Your task to perform on an android device: What is the recent news? Image 0: 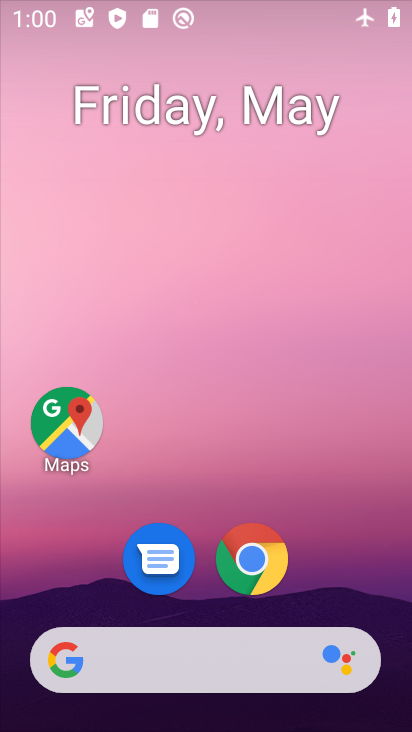
Step 0: press home button
Your task to perform on an android device: What is the recent news? Image 1: 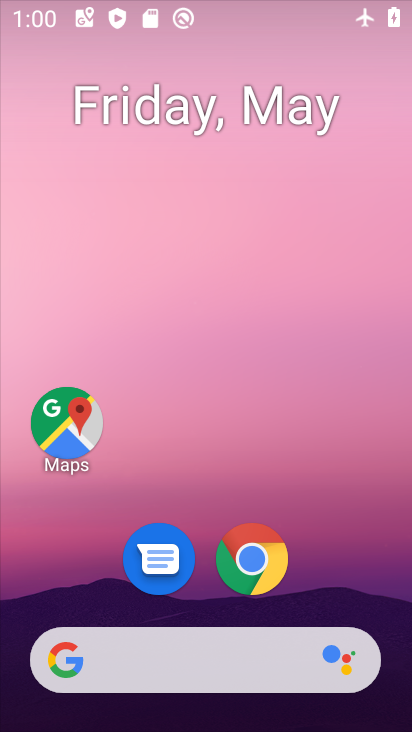
Step 1: click (255, 558)
Your task to perform on an android device: What is the recent news? Image 2: 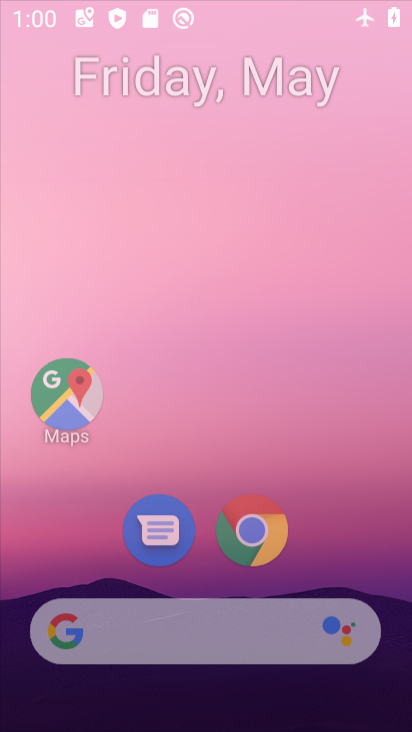
Step 2: press home button
Your task to perform on an android device: What is the recent news? Image 3: 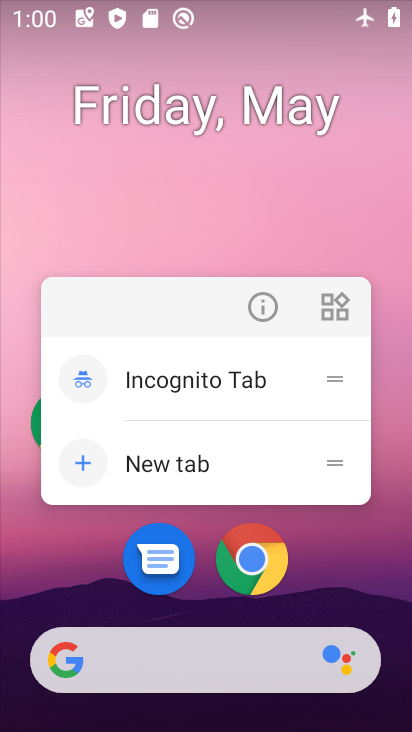
Step 3: press home button
Your task to perform on an android device: What is the recent news? Image 4: 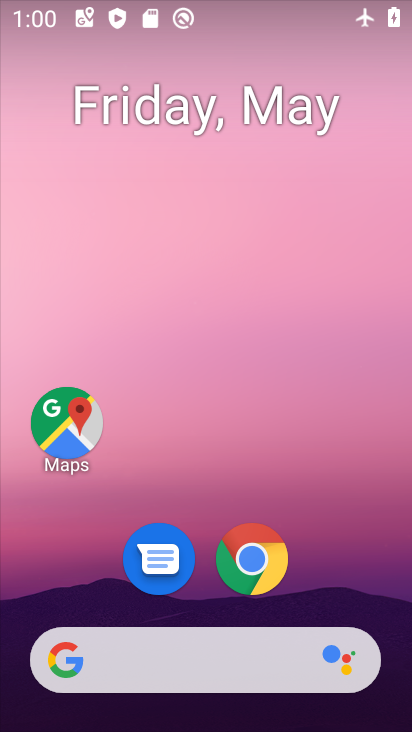
Step 4: click (254, 569)
Your task to perform on an android device: What is the recent news? Image 5: 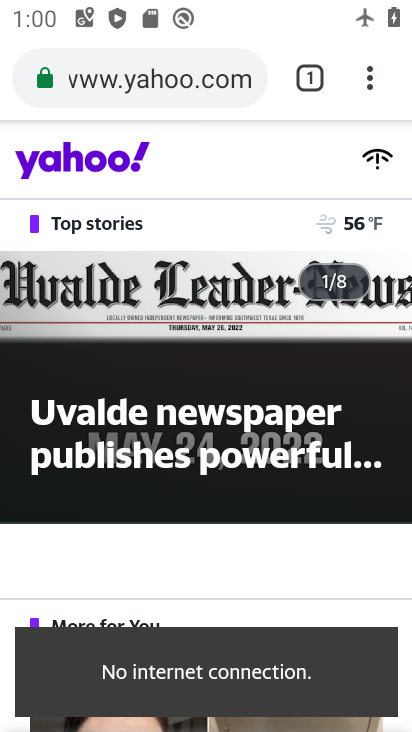
Step 5: click (231, 67)
Your task to perform on an android device: What is the recent news? Image 6: 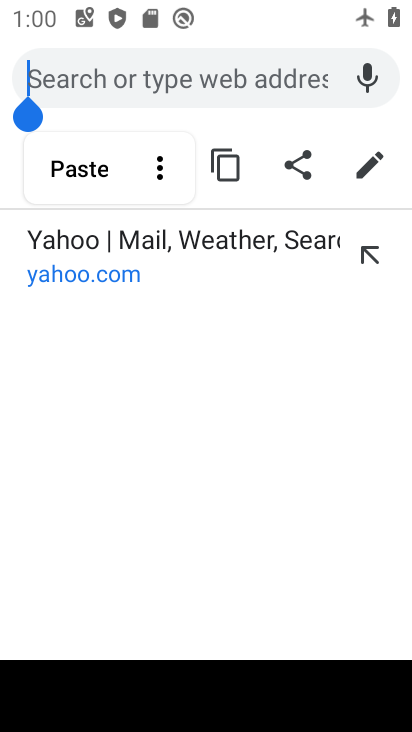
Step 6: type "news"
Your task to perform on an android device: What is the recent news? Image 7: 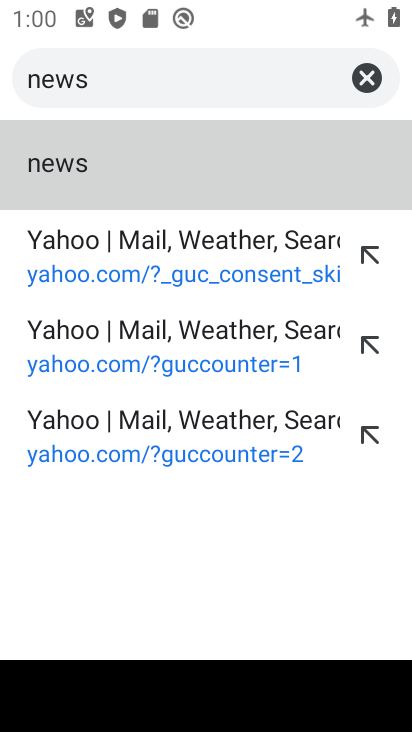
Step 7: click (75, 163)
Your task to perform on an android device: What is the recent news? Image 8: 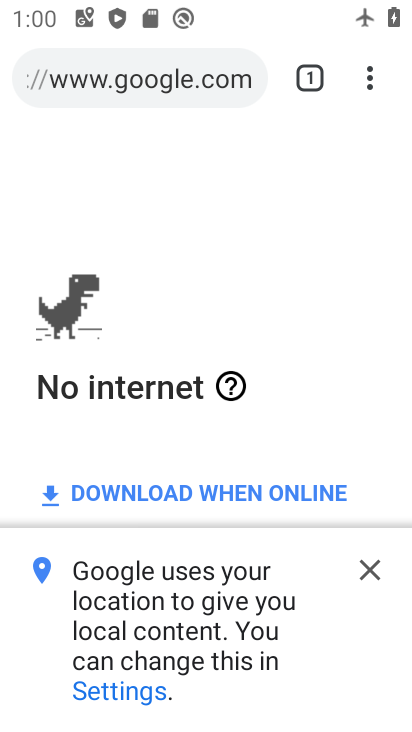
Step 8: task complete